Your task to perform on an android device: Show me popular games on the Play Store Image 0: 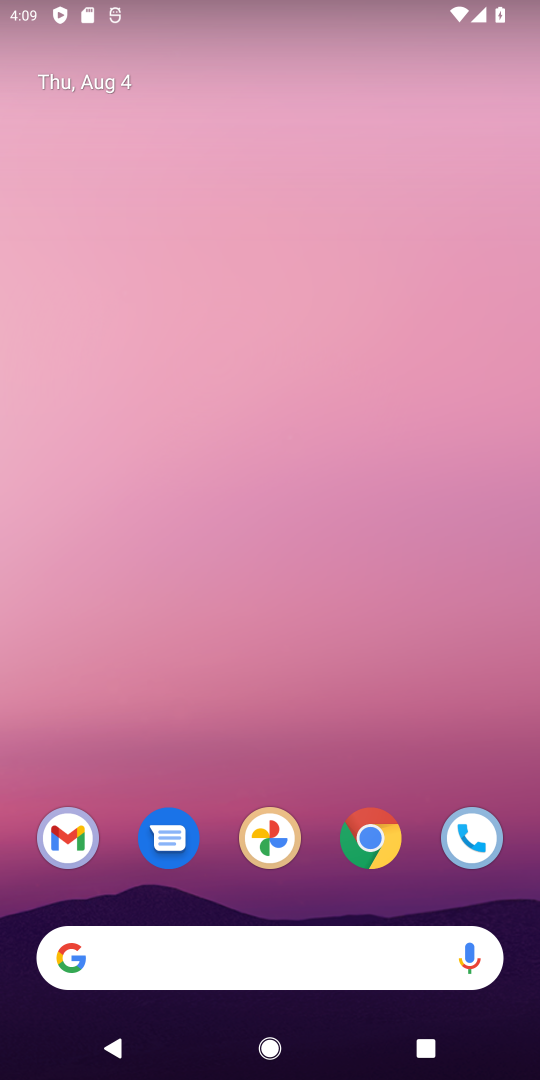
Step 0: drag from (350, 770) to (393, 268)
Your task to perform on an android device: Show me popular games on the Play Store Image 1: 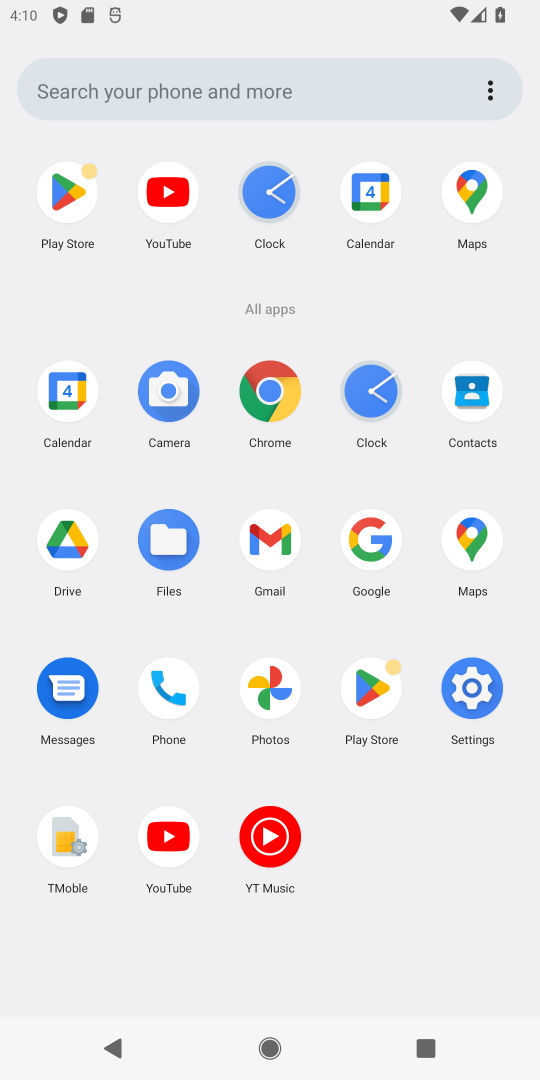
Step 1: click (377, 702)
Your task to perform on an android device: Show me popular games on the Play Store Image 2: 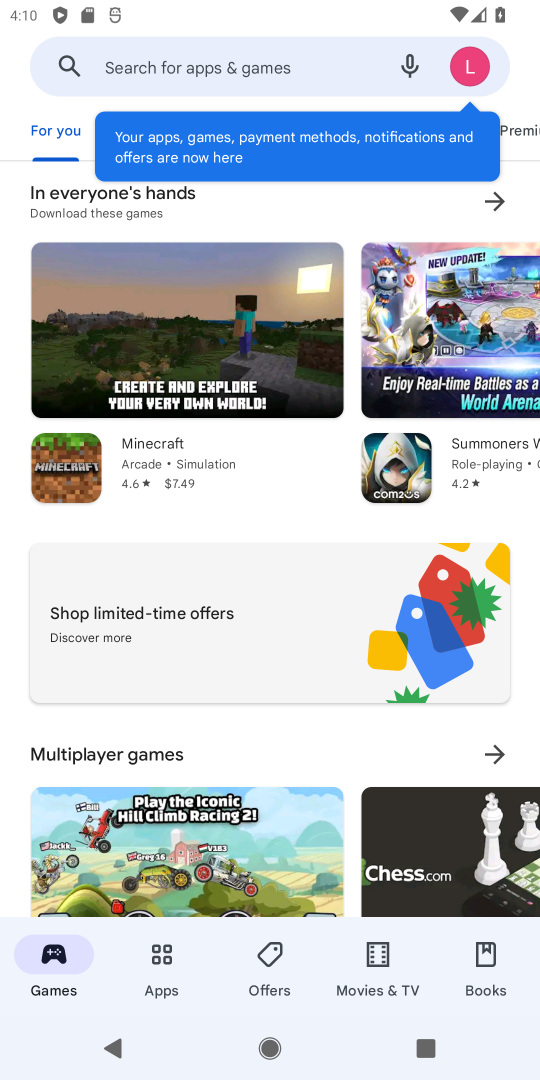
Step 2: click (66, 131)
Your task to perform on an android device: Show me popular games on the Play Store Image 3: 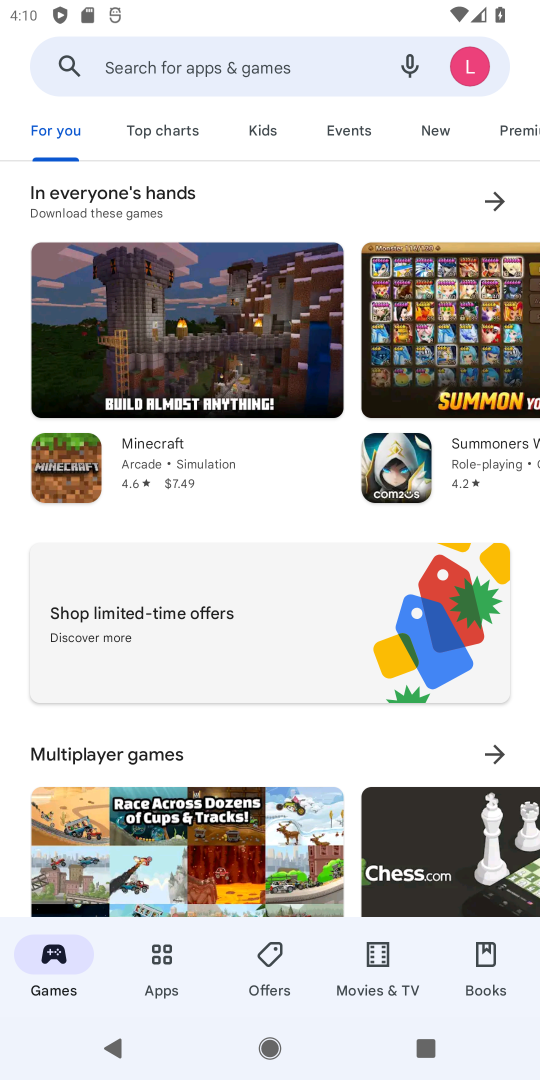
Step 3: click (145, 128)
Your task to perform on an android device: Show me popular games on the Play Store Image 4: 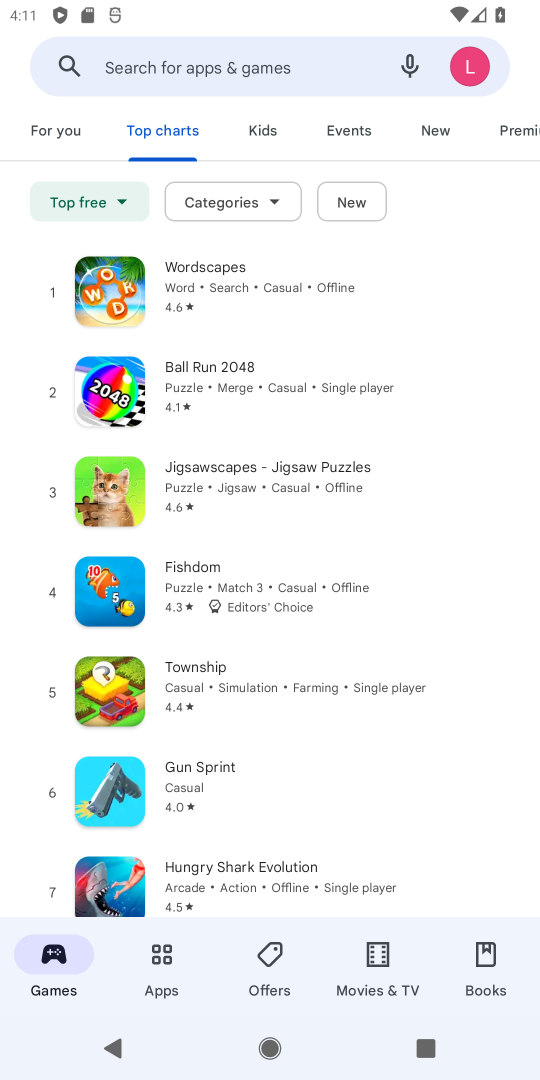
Step 4: task complete